Your task to perform on an android device: search for starred emails in the gmail app Image 0: 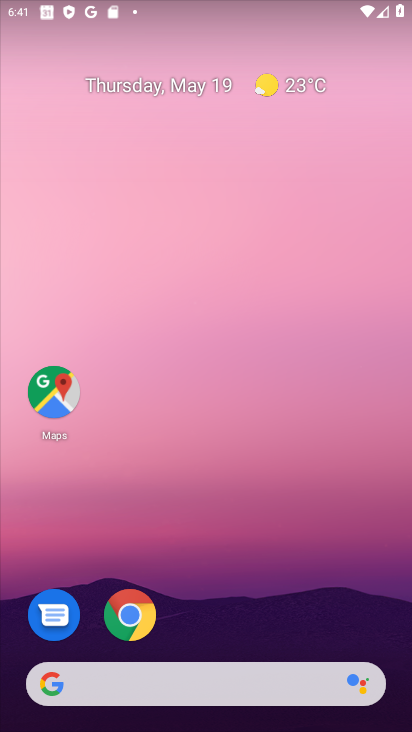
Step 0: drag from (331, 611) to (284, 65)
Your task to perform on an android device: search for starred emails in the gmail app Image 1: 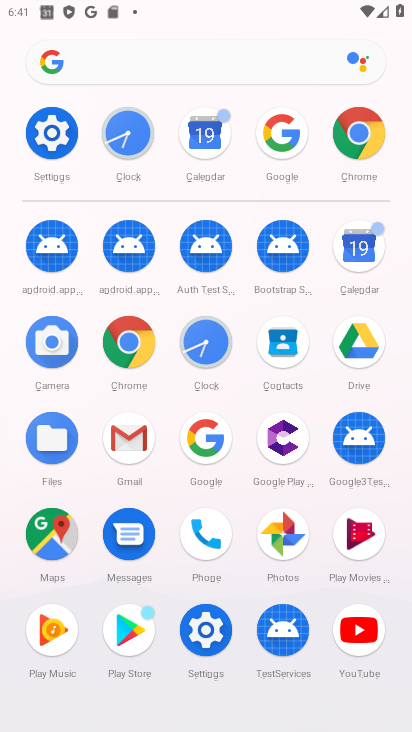
Step 1: click (125, 443)
Your task to perform on an android device: search for starred emails in the gmail app Image 2: 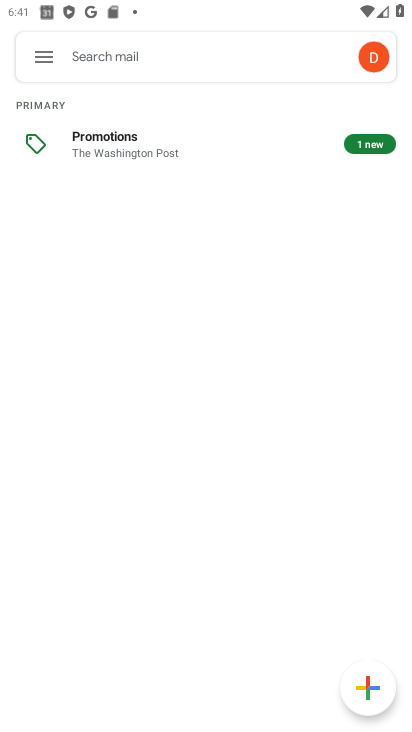
Step 2: click (40, 50)
Your task to perform on an android device: search for starred emails in the gmail app Image 3: 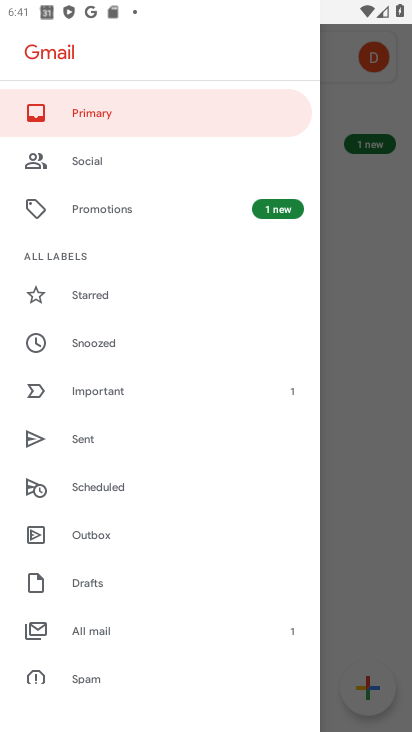
Step 3: click (140, 303)
Your task to perform on an android device: search for starred emails in the gmail app Image 4: 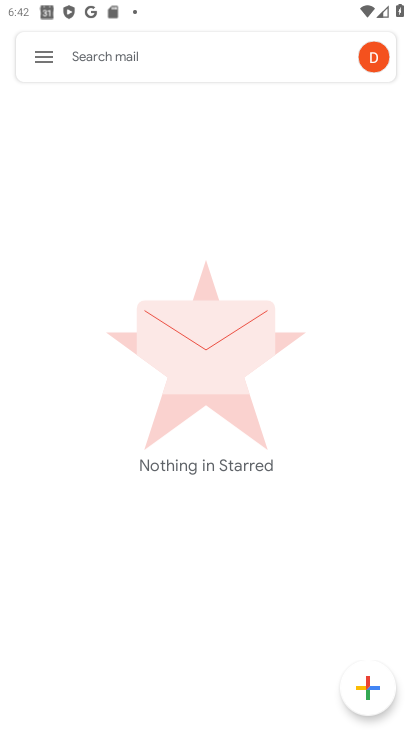
Step 4: task complete